Your task to perform on an android device: Go to ESPN.com Image 0: 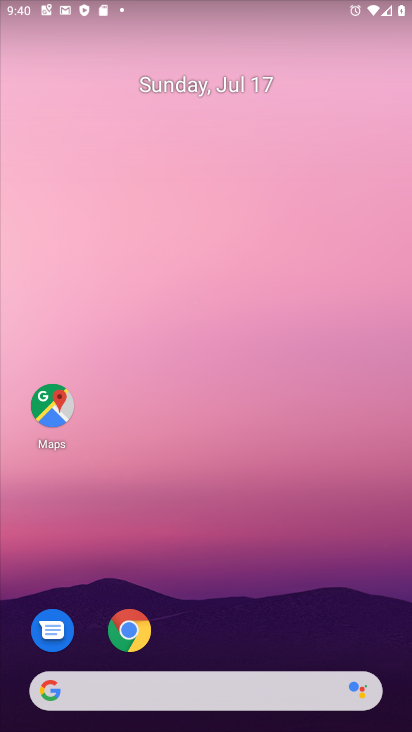
Step 0: drag from (328, 582) to (360, 87)
Your task to perform on an android device: Go to ESPN.com Image 1: 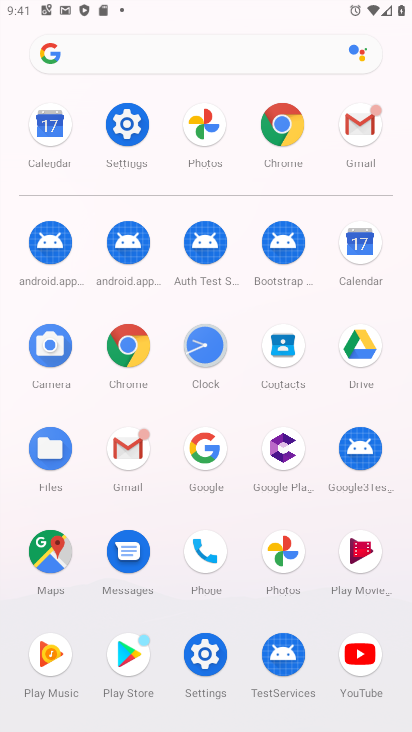
Step 1: click (128, 345)
Your task to perform on an android device: Go to ESPN.com Image 2: 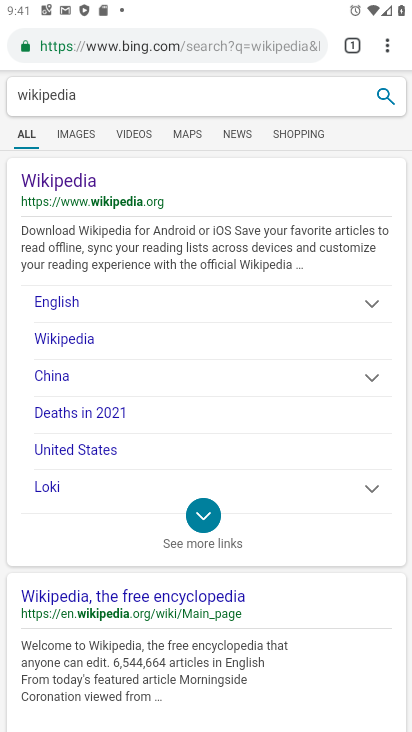
Step 2: click (256, 48)
Your task to perform on an android device: Go to ESPN.com Image 3: 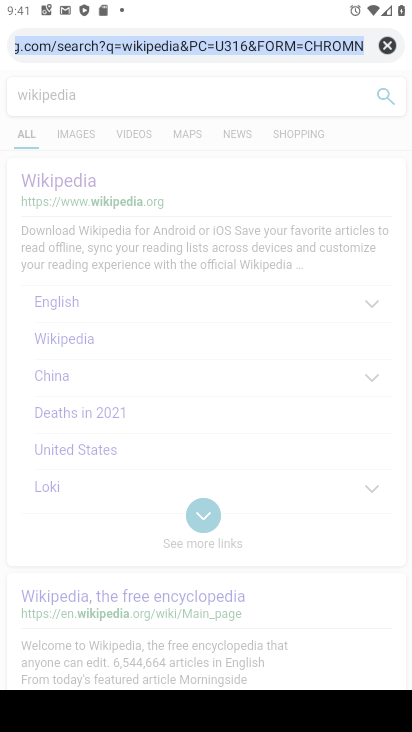
Step 3: type "espn.com"
Your task to perform on an android device: Go to ESPN.com Image 4: 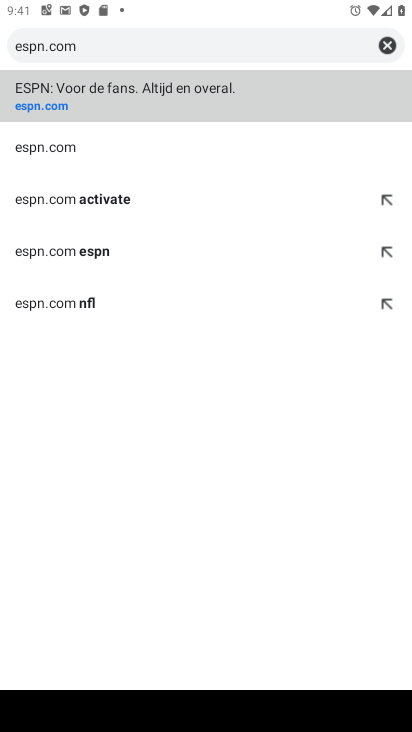
Step 4: click (135, 93)
Your task to perform on an android device: Go to ESPN.com Image 5: 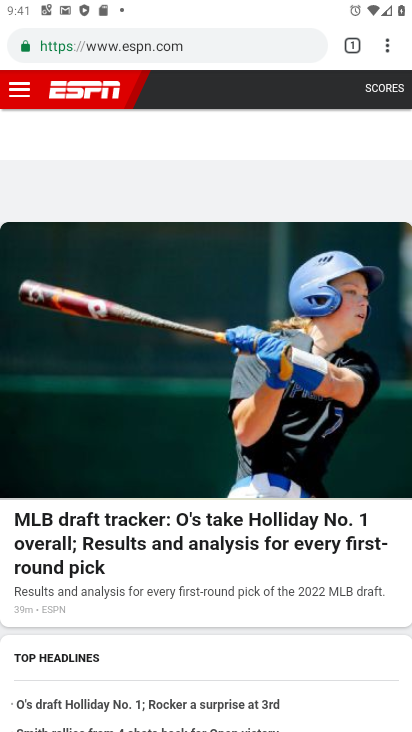
Step 5: task complete